Your task to perform on an android device: Go to Wikipedia Image 0: 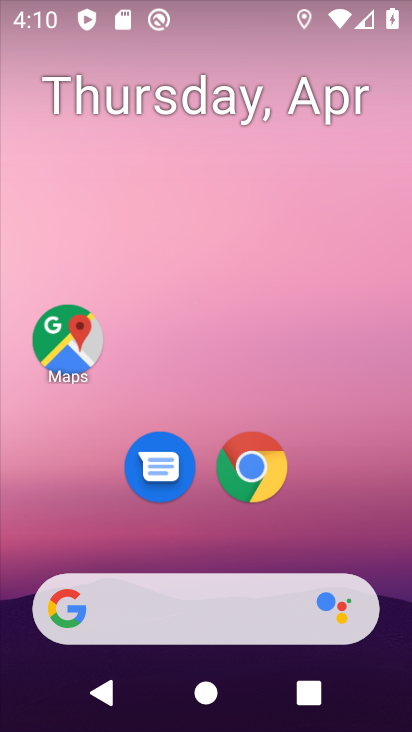
Step 0: click (250, 480)
Your task to perform on an android device: Go to Wikipedia Image 1: 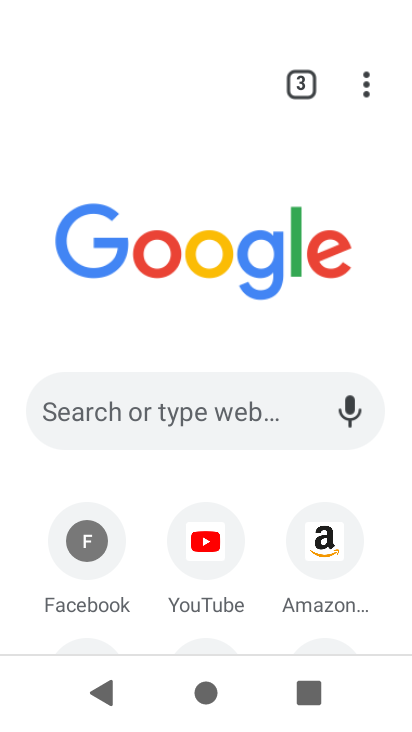
Step 1: drag from (200, 485) to (238, 221)
Your task to perform on an android device: Go to Wikipedia Image 2: 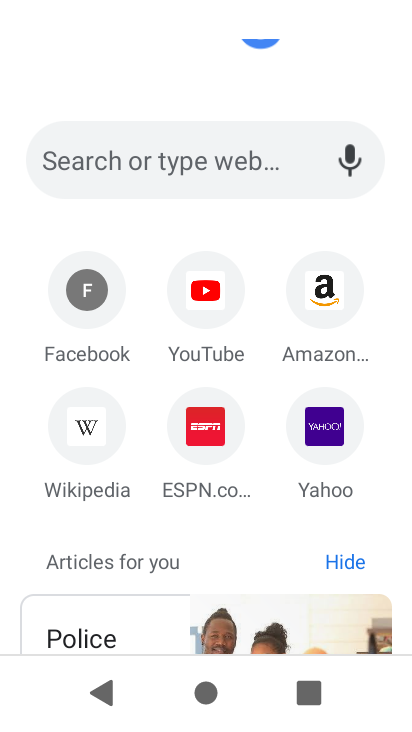
Step 2: click (82, 416)
Your task to perform on an android device: Go to Wikipedia Image 3: 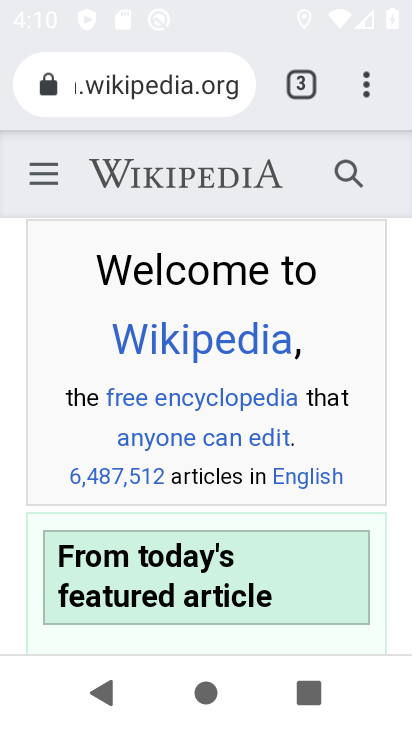
Step 3: task complete